Your task to perform on an android device: change keyboard looks Image 0: 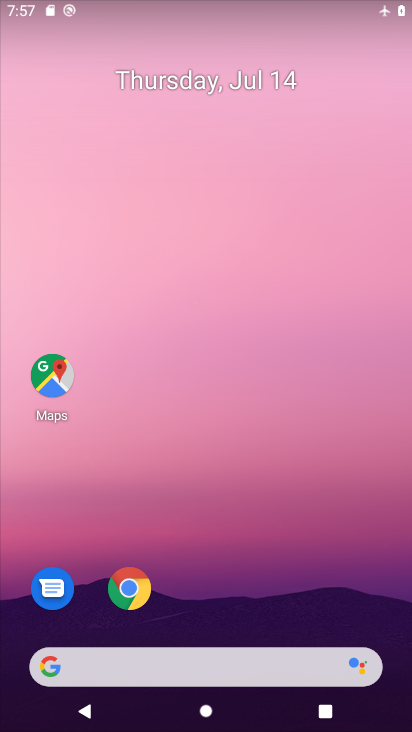
Step 0: drag from (187, 640) to (177, 43)
Your task to perform on an android device: change keyboard looks Image 1: 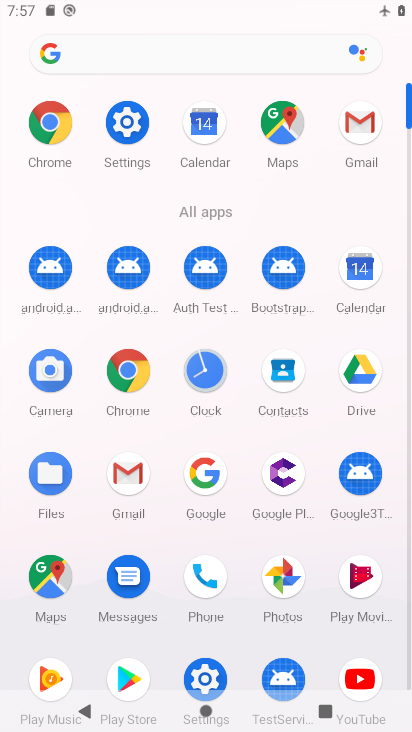
Step 1: click (136, 109)
Your task to perform on an android device: change keyboard looks Image 2: 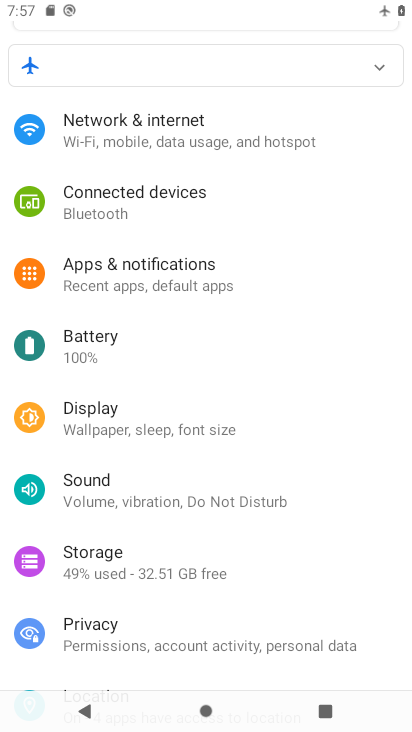
Step 2: drag from (172, 487) to (300, 161)
Your task to perform on an android device: change keyboard looks Image 3: 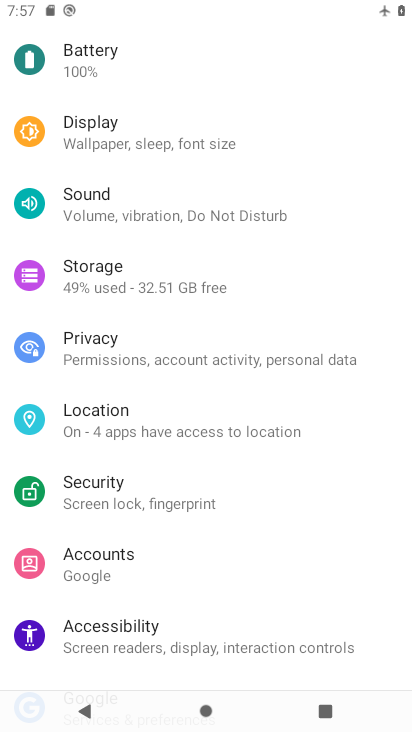
Step 3: drag from (197, 484) to (157, 112)
Your task to perform on an android device: change keyboard looks Image 4: 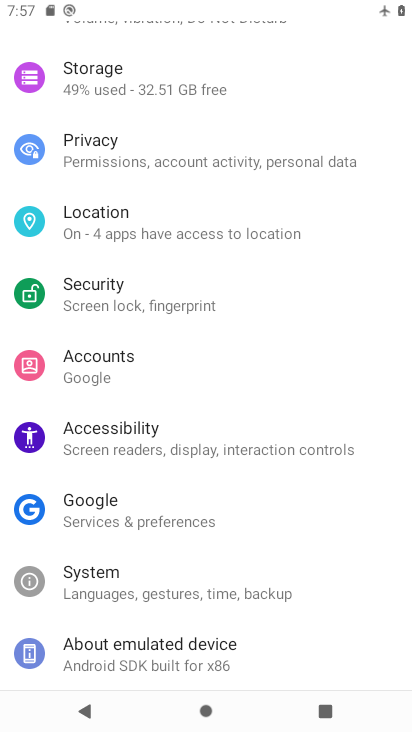
Step 4: click (49, 584)
Your task to perform on an android device: change keyboard looks Image 5: 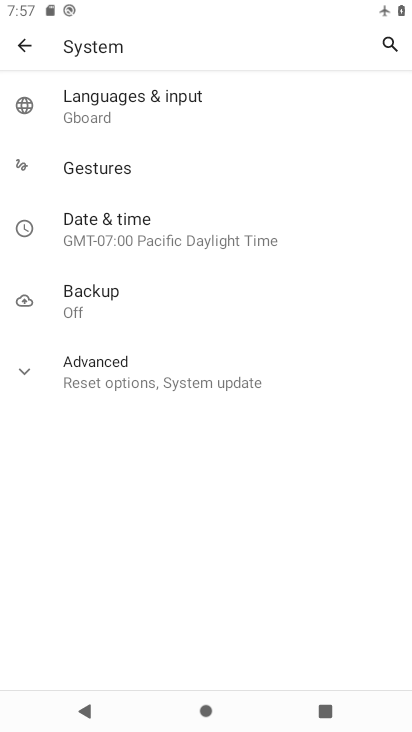
Step 5: click (114, 115)
Your task to perform on an android device: change keyboard looks Image 6: 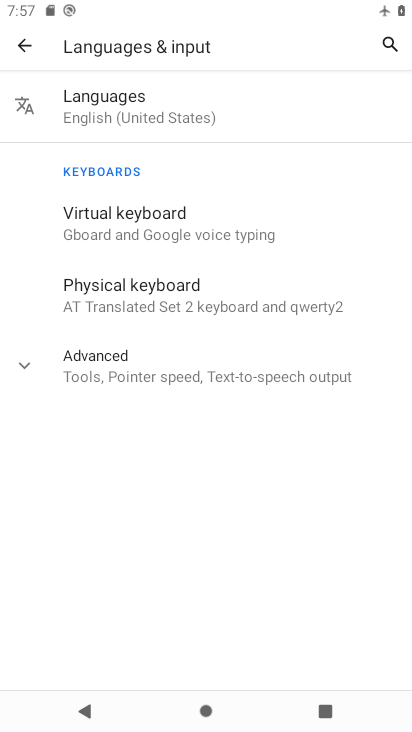
Step 6: click (142, 196)
Your task to perform on an android device: change keyboard looks Image 7: 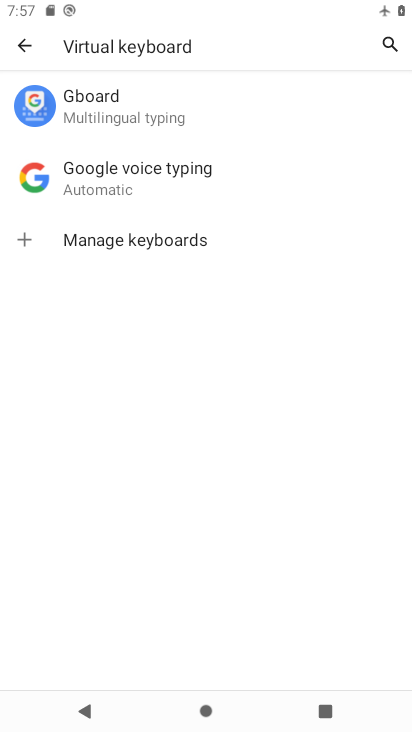
Step 7: click (127, 121)
Your task to perform on an android device: change keyboard looks Image 8: 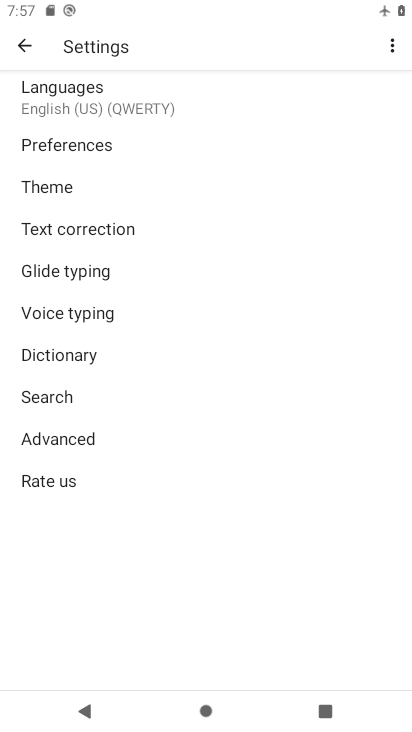
Step 8: click (67, 187)
Your task to perform on an android device: change keyboard looks Image 9: 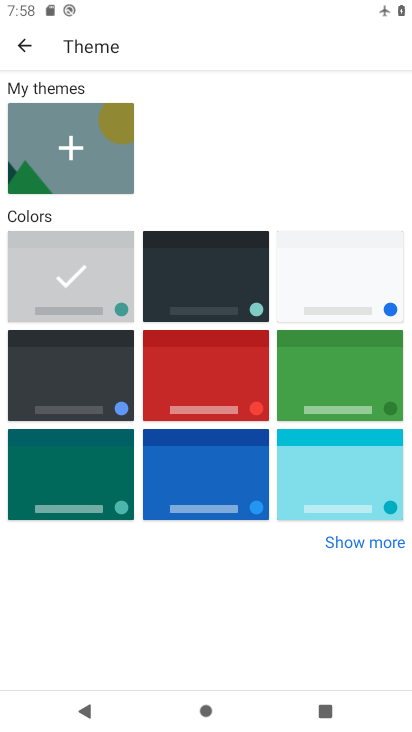
Step 9: click (174, 229)
Your task to perform on an android device: change keyboard looks Image 10: 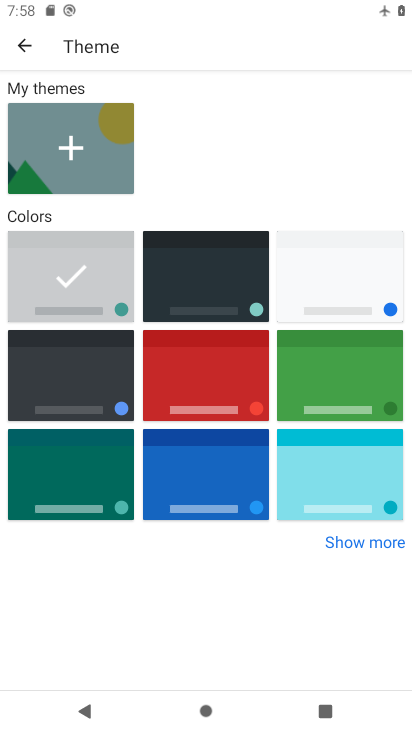
Step 10: click (172, 228)
Your task to perform on an android device: change keyboard looks Image 11: 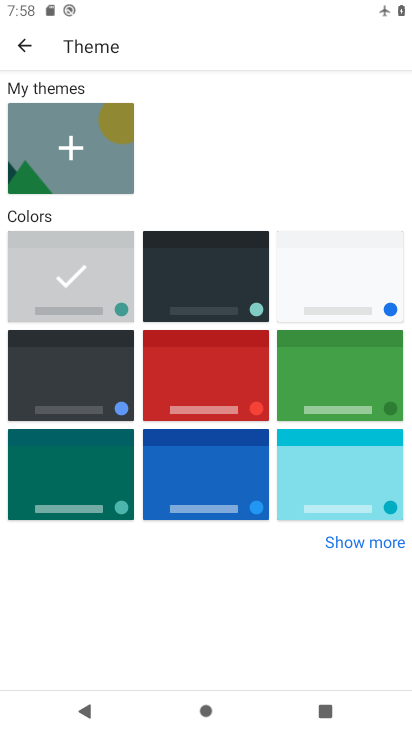
Step 11: click (172, 228)
Your task to perform on an android device: change keyboard looks Image 12: 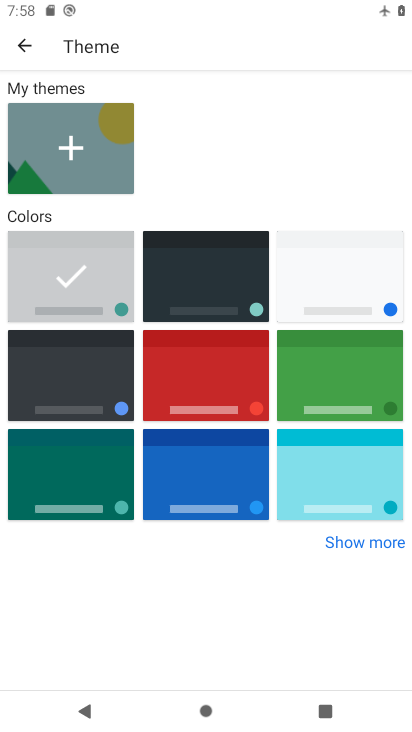
Step 12: click (241, 362)
Your task to perform on an android device: change keyboard looks Image 13: 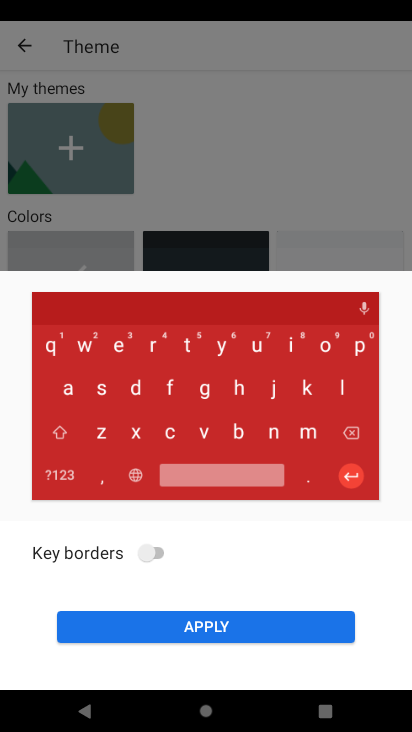
Step 13: click (212, 613)
Your task to perform on an android device: change keyboard looks Image 14: 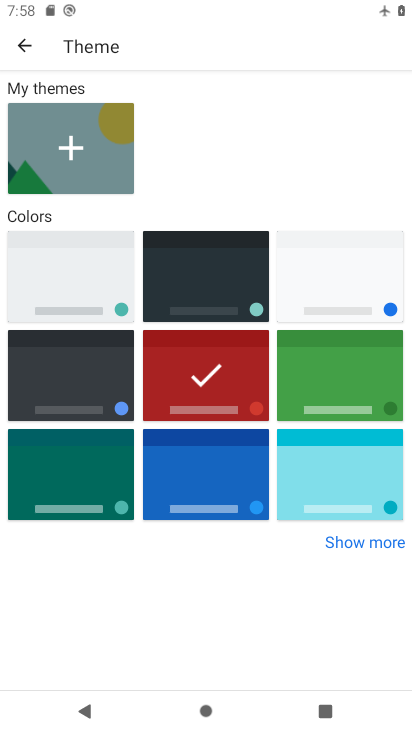
Step 14: task complete